Your task to perform on an android device: clear history in the chrome app Image 0: 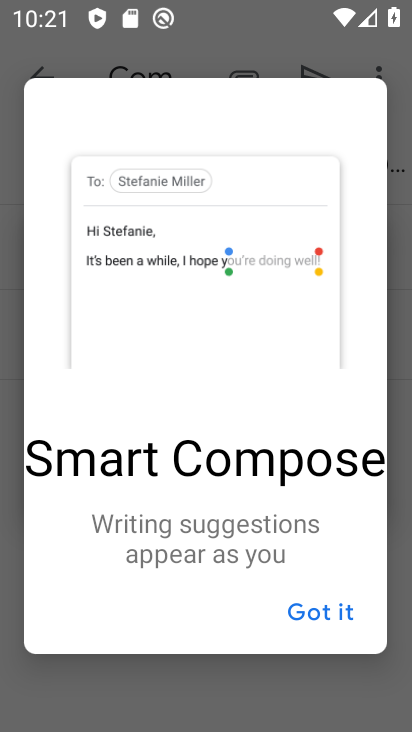
Step 0: press home button
Your task to perform on an android device: clear history in the chrome app Image 1: 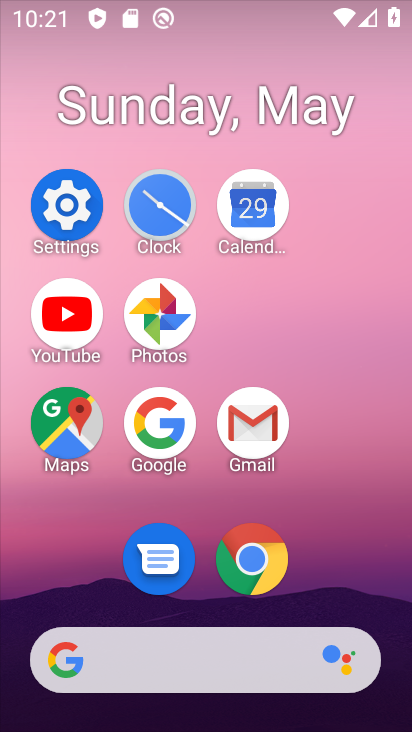
Step 1: click (259, 557)
Your task to perform on an android device: clear history in the chrome app Image 2: 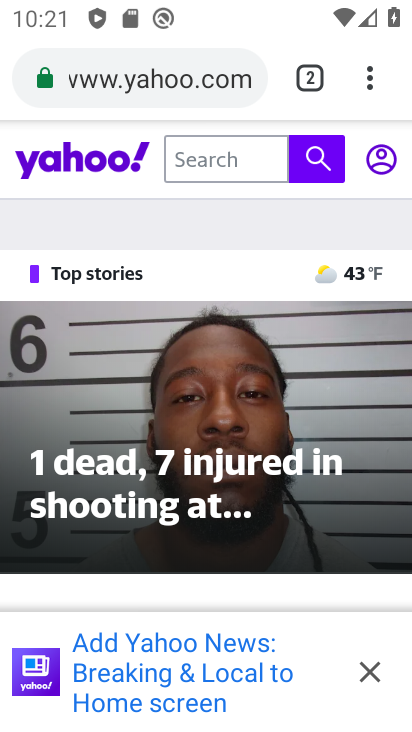
Step 2: click (381, 70)
Your task to perform on an android device: clear history in the chrome app Image 3: 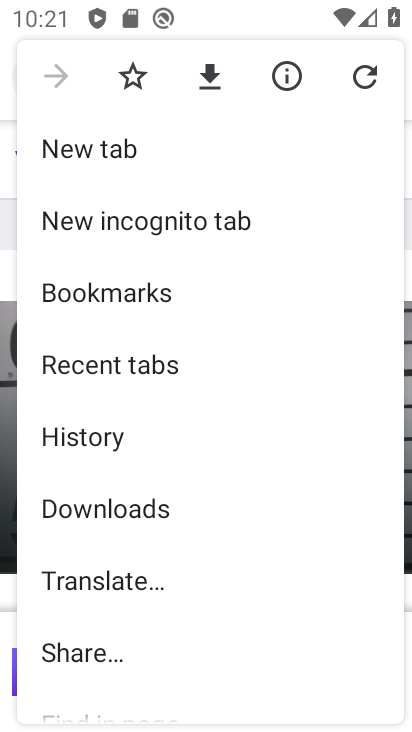
Step 3: click (107, 451)
Your task to perform on an android device: clear history in the chrome app Image 4: 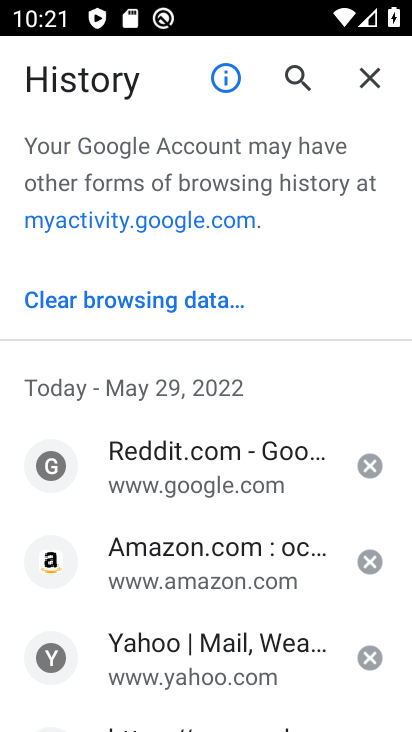
Step 4: click (170, 309)
Your task to perform on an android device: clear history in the chrome app Image 5: 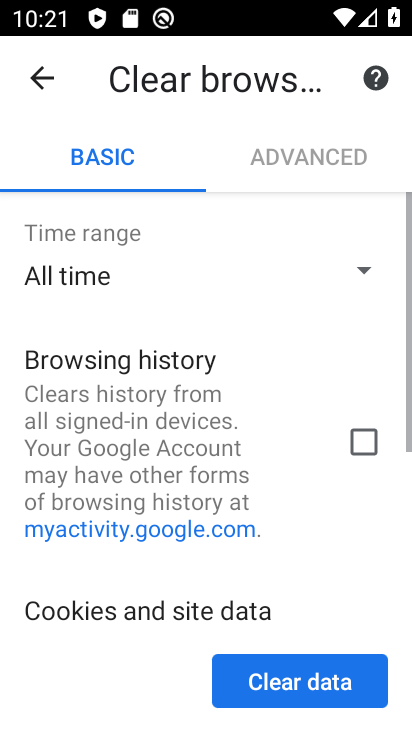
Step 5: drag from (300, 632) to (263, 226)
Your task to perform on an android device: clear history in the chrome app Image 6: 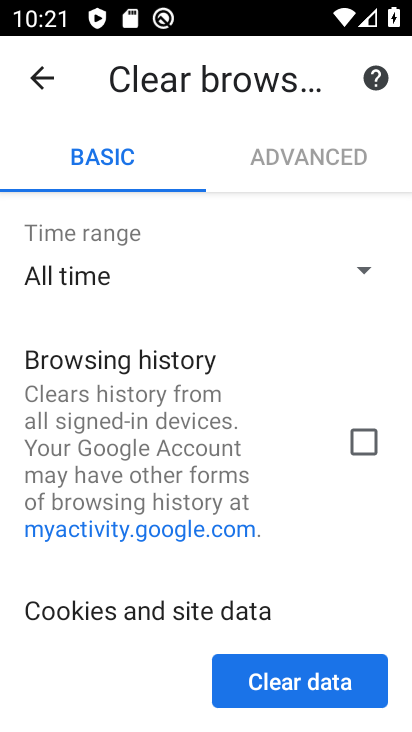
Step 6: drag from (259, 547) to (272, 254)
Your task to perform on an android device: clear history in the chrome app Image 7: 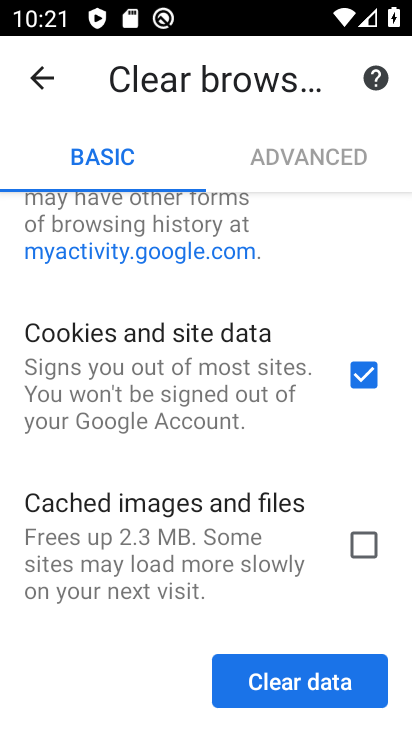
Step 7: drag from (258, 245) to (280, 476)
Your task to perform on an android device: clear history in the chrome app Image 8: 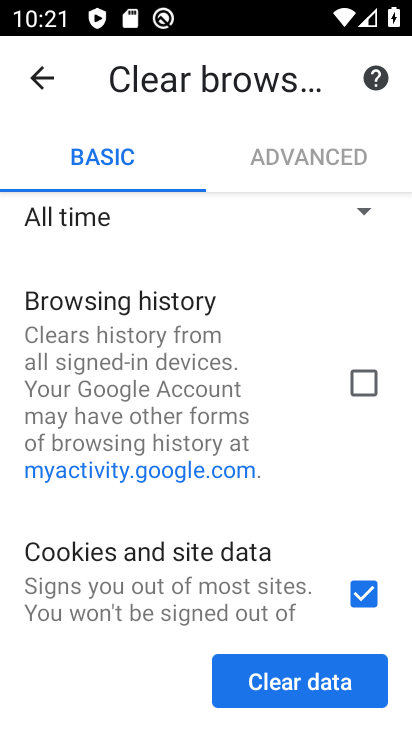
Step 8: click (357, 374)
Your task to perform on an android device: clear history in the chrome app Image 9: 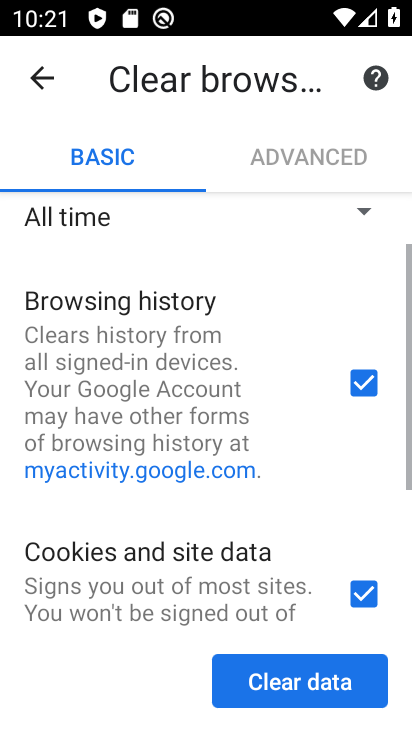
Step 9: click (302, 667)
Your task to perform on an android device: clear history in the chrome app Image 10: 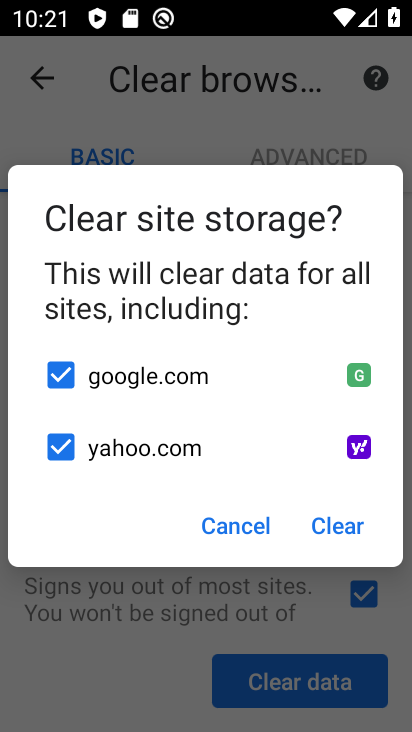
Step 10: click (352, 519)
Your task to perform on an android device: clear history in the chrome app Image 11: 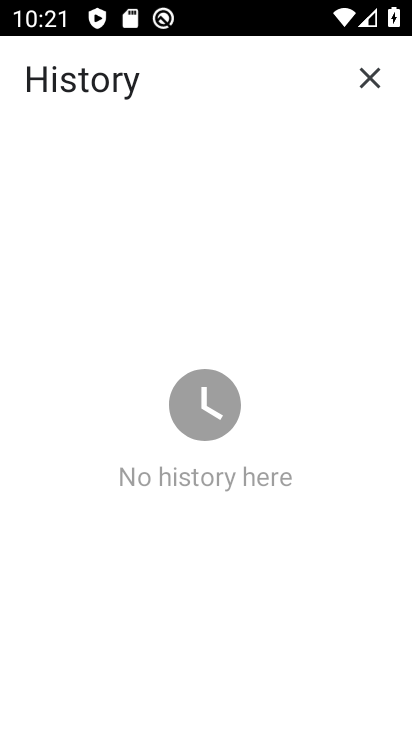
Step 11: task complete